Your task to perform on an android device: Clear the cart on newegg. Search for alienware aurora on newegg, select the first entry, add it to the cart, then select checkout. Image 0: 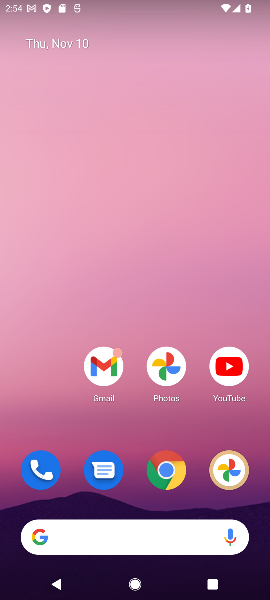
Step 0: click (170, 482)
Your task to perform on an android device: Clear the cart on newegg. Search for alienware aurora on newegg, select the first entry, add it to the cart, then select checkout. Image 1: 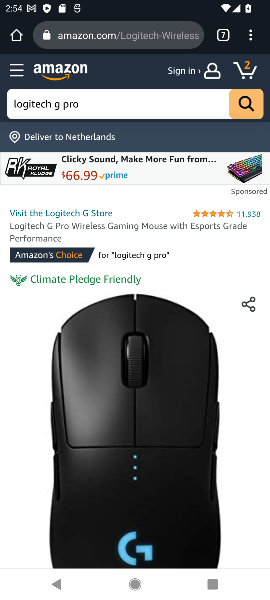
Step 1: click (225, 38)
Your task to perform on an android device: Clear the cart on newegg. Search for alienware aurora on newegg, select the first entry, add it to the cart, then select checkout. Image 2: 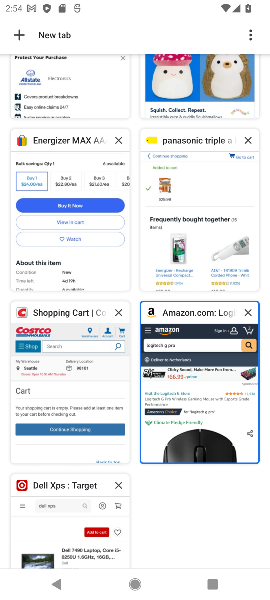
Step 2: click (84, 99)
Your task to perform on an android device: Clear the cart on newegg. Search for alienware aurora on newegg, select the first entry, add it to the cart, then select checkout. Image 3: 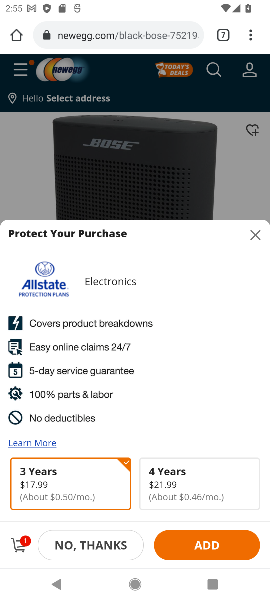
Step 3: click (16, 547)
Your task to perform on an android device: Clear the cart on newegg. Search for alienware aurora on newegg, select the first entry, add it to the cart, then select checkout. Image 4: 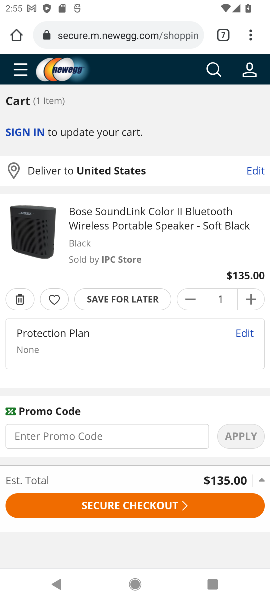
Step 4: click (19, 291)
Your task to perform on an android device: Clear the cart on newegg. Search for alienware aurora on newegg, select the first entry, add it to the cart, then select checkout. Image 5: 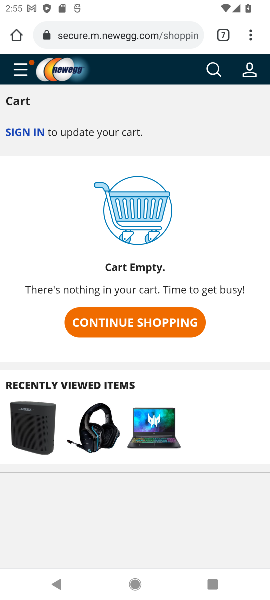
Step 5: click (210, 66)
Your task to perform on an android device: Clear the cart on newegg. Search for alienware aurora on newegg, select the first entry, add it to the cart, then select checkout. Image 6: 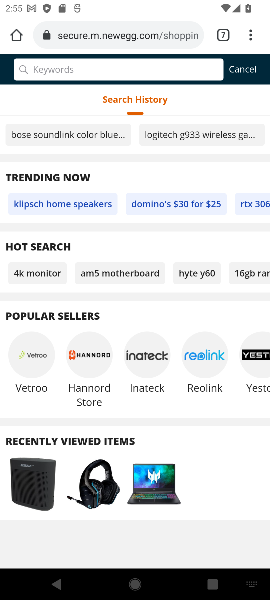
Step 6: type "alienware aurora"
Your task to perform on an android device: Clear the cart on newegg. Search for alienware aurora on newegg, select the first entry, add it to the cart, then select checkout. Image 7: 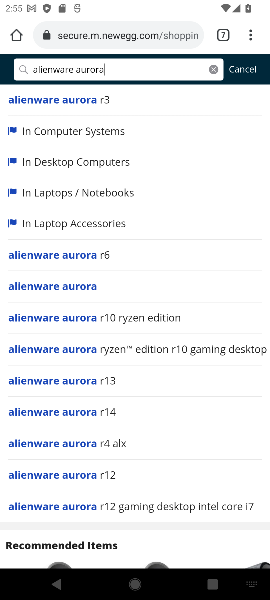
Step 7: click (28, 98)
Your task to perform on an android device: Clear the cart on newegg. Search for alienware aurora on newegg, select the first entry, add it to the cart, then select checkout. Image 8: 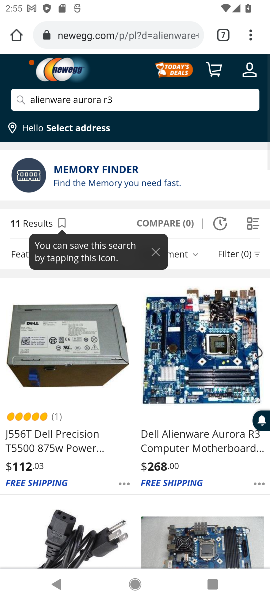
Step 8: click (170, 433)
Your task to perform on an android device: Clear the cart on newegg. Search for alienware aurora on newegg, select the first entry, add it to the cart, then select checkout. Image 9: 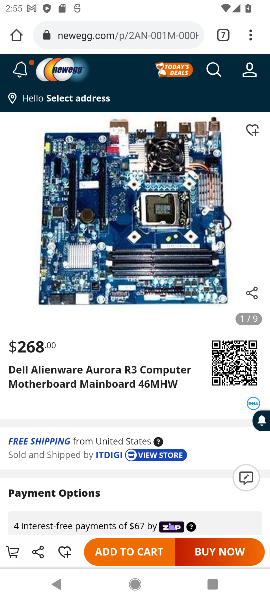
Step 9: click (131, 552)
Your task to perform on an android device: Clear the cart on newegg. Search for alienware aurora on newegg, select the first entry, add it to the cart, then select checkout. Image 10: 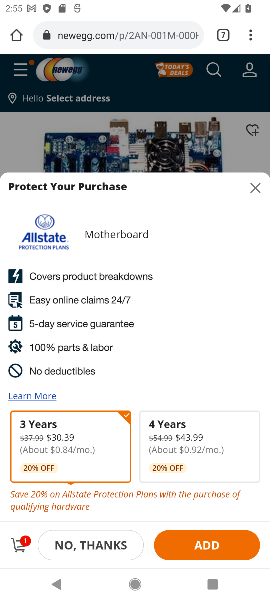
Step 10: task complete